Your task to perform on an android device: Open Android settings Image 0: 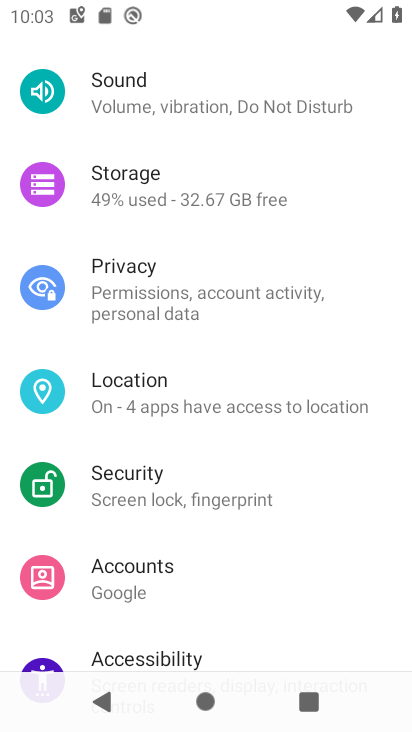
Step 0: drag from (252, 582) to (243, 105)
Your task to perform on an android device: Open Android settings Image 1: 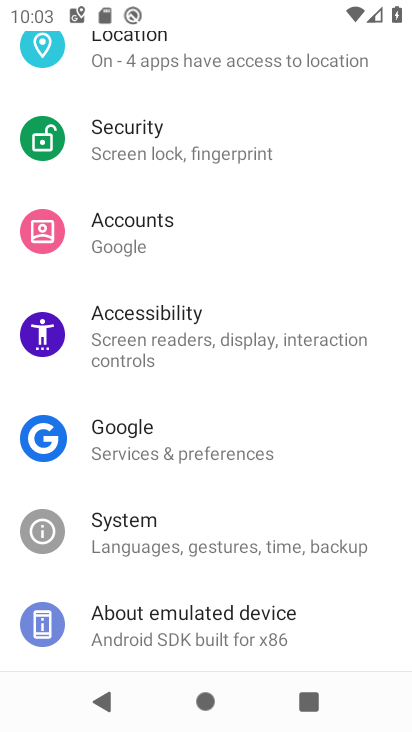
Step 1: click (212, 627)
Your task to perform on an android device: Open Android settings Image 2: 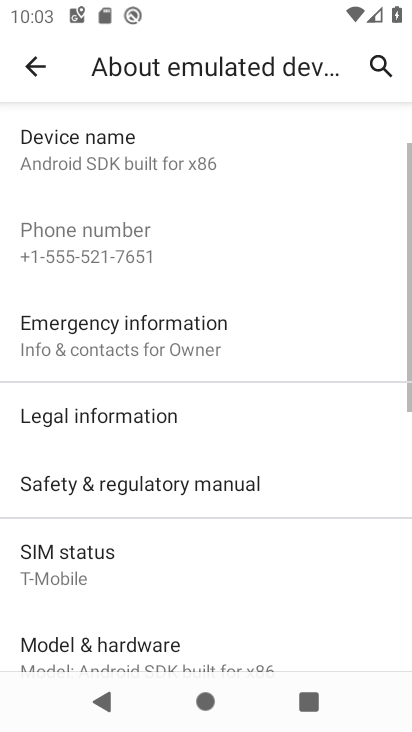
Step 2: task complete